Your task to perform on an android device: When is my next appointment? Image 0: 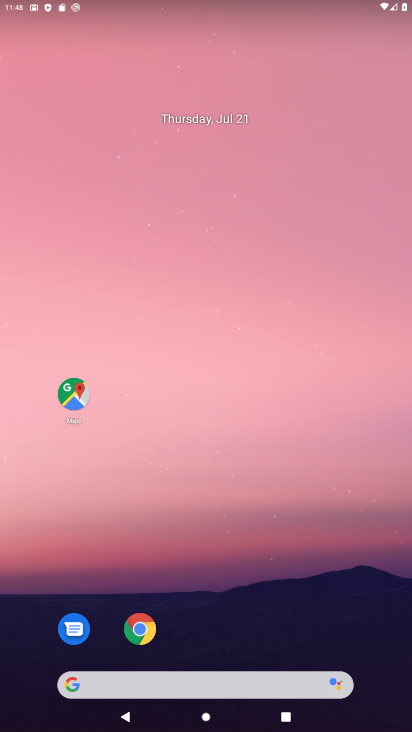
Step 0: drag from (301, 674) to (6, 119)
Your task to perform on an android device: When is my next appointment? Image 1: 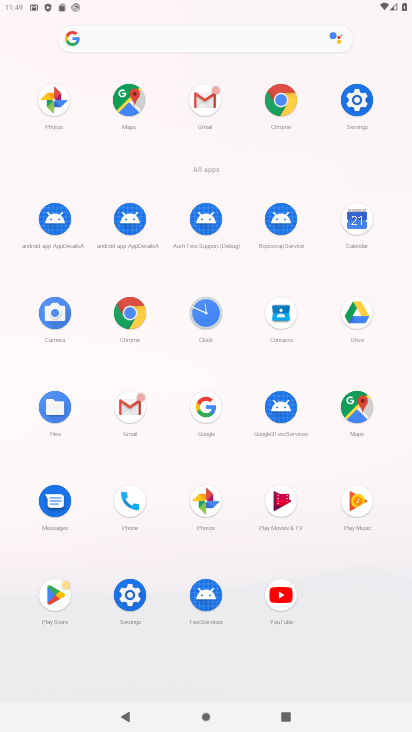
Step 1: click (351, 220)
Your task to perform on an android device: When is my next appointment? Image 2: 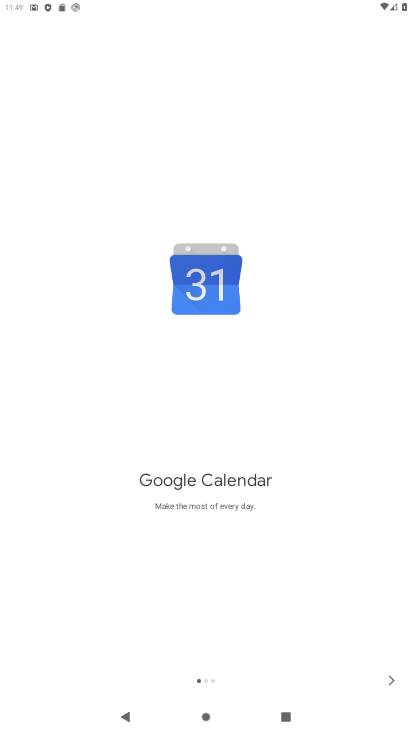
Step 2: click (382, 679)
Your task to perform on an android device: When is my next appointment? Image 3: 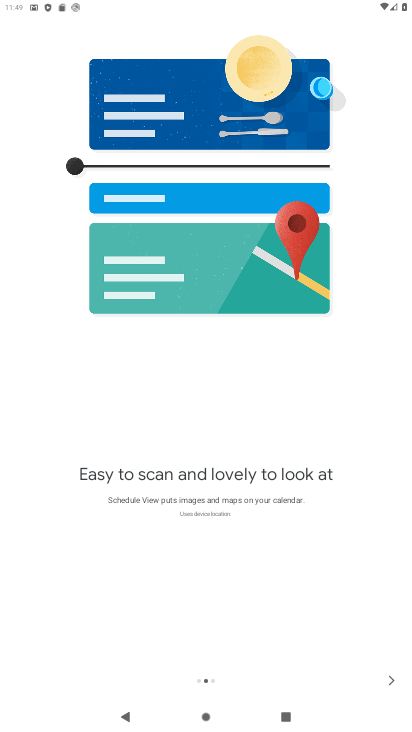
Step 3: click (382, 679)
Your task to perform on an android device: When is my next appointment? Image 4: 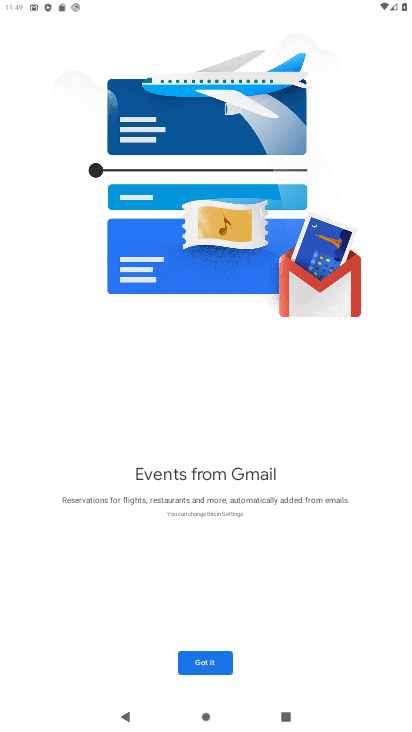
Step 4: click (197, 656)
Your task to perform on an android device: When is my next appointment? Image 5: 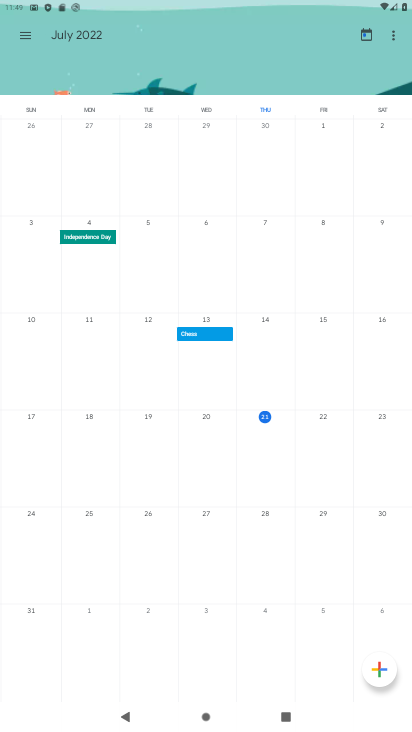
Step 5: click (326, 414)
Your task to perform on an android device: When is my next appointment? Image 6: 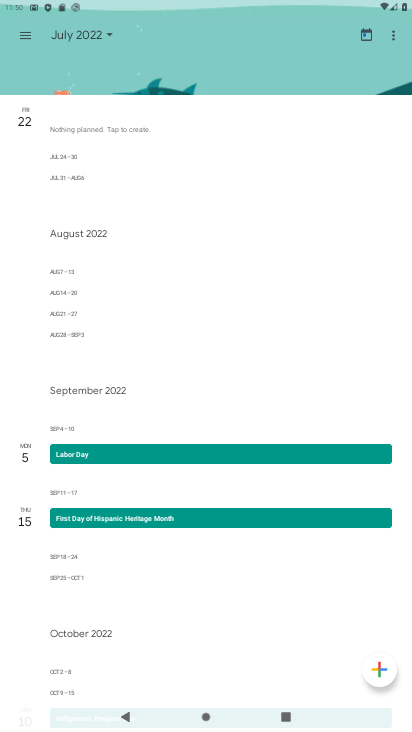
Step 6: task complete